Your task to perform on an android device: turn off location history Image 0: 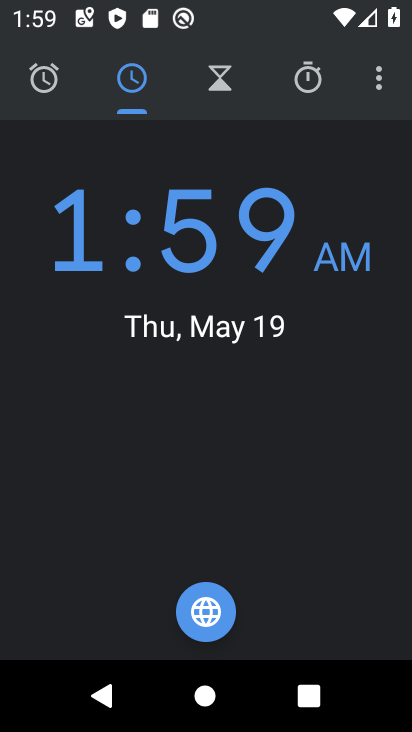
Step 0: press home button
Your task to perform on an android device: turn off location history Image 1: 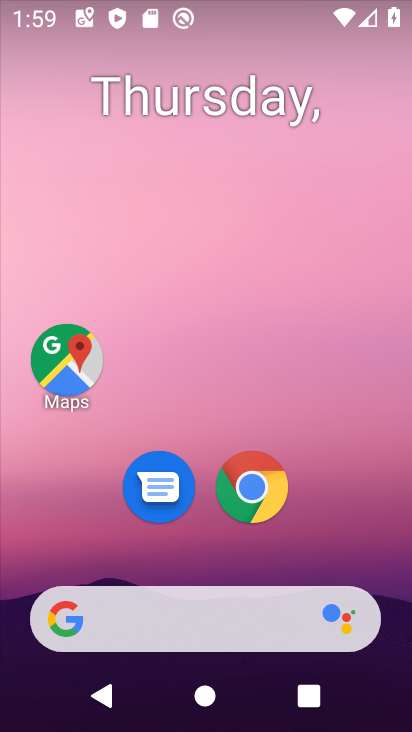
Step 1: drag from (313, 553) to (264, 38)
Your task to perform on an android device: turn off location history Image 2: 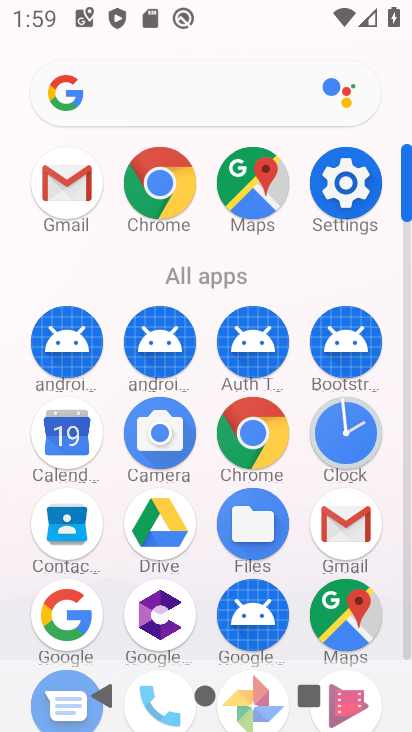
Step 2: click (339, 186)
Your task to perform on an android device: turn off location history Image 3: 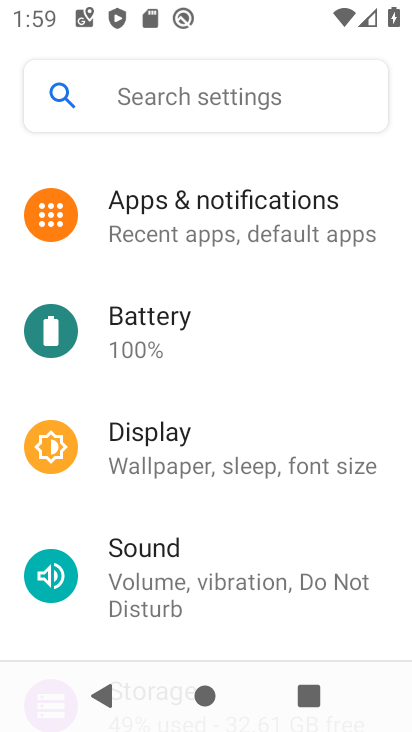
Step 3: drag from (168, 585) to (210, 251)
Your task to perform on an android device: turn off location history Image 4: 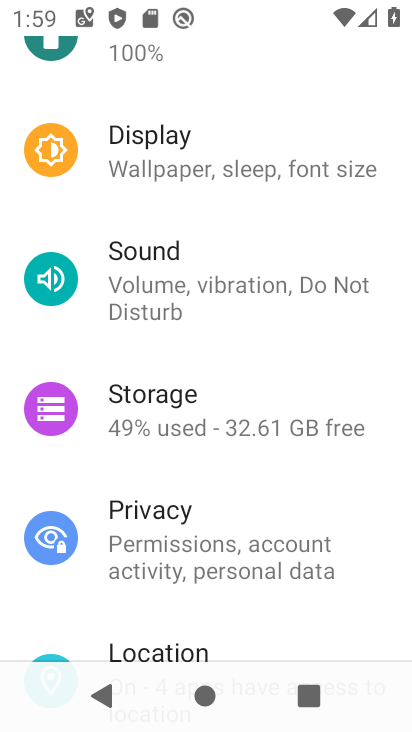
Step 4: drag from (204, 510) to (233, 185)
Your task to perform on an android device: turn off location history Image 5: 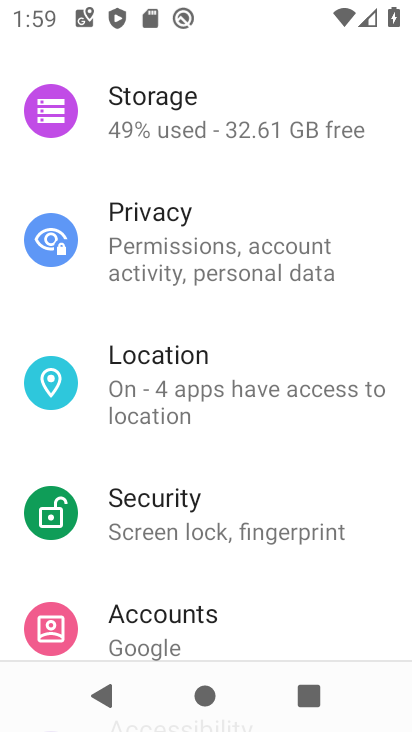
Step 5: click (191, 378)
Your task to perform on an android device: turn off location history Image 6: 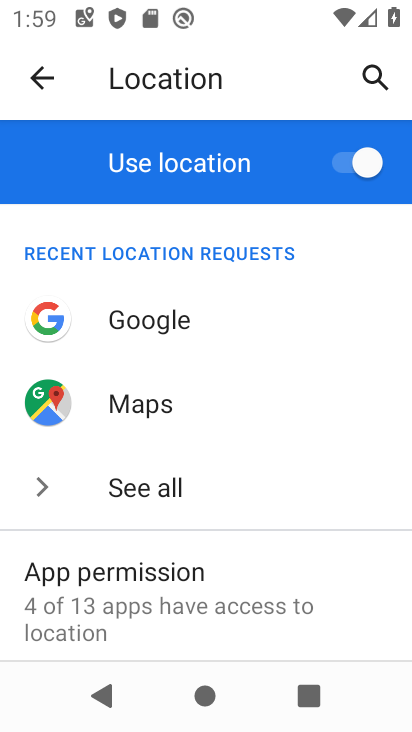
Step 6: drag from (161, 582) to (171, 244)
Your task to perform on an android device: turn off location history Image 7: 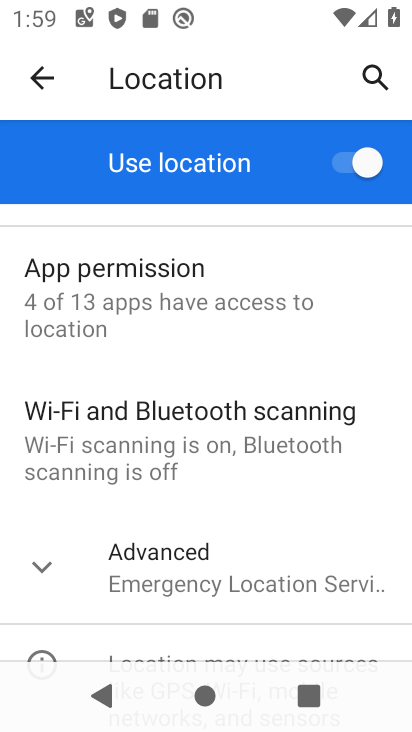
Step 7: click (207, 580)
Your task to perform on an android device: turn off location history Image 8: 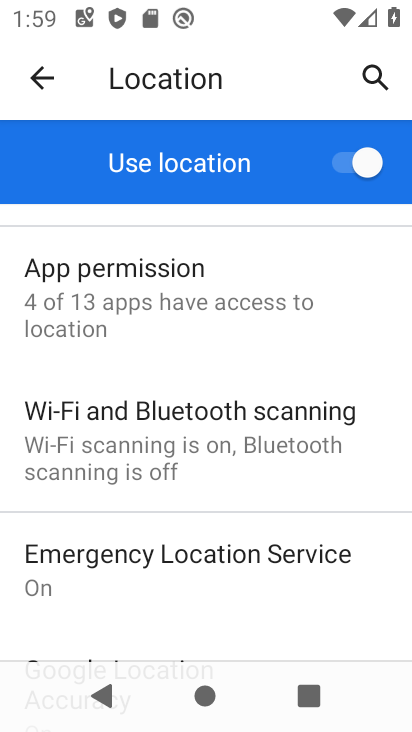
Step 8: drag from (204, 562) to (209, 253)
Your task to perform on an android device: turn off location history Image 9: 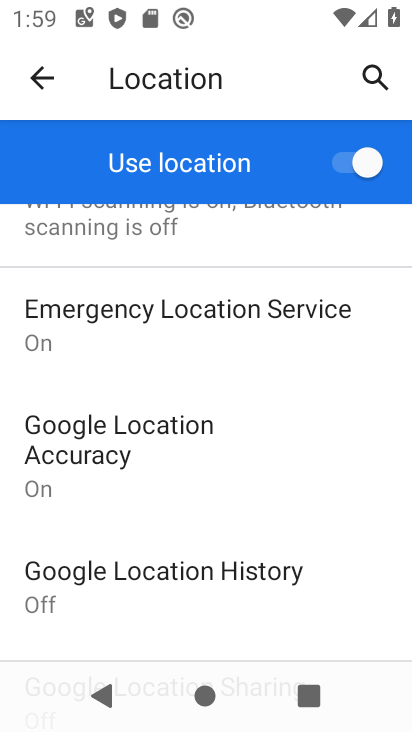
Step 9: click (71, 583)
Your task to perform on an android device: turn off location history Image 10: 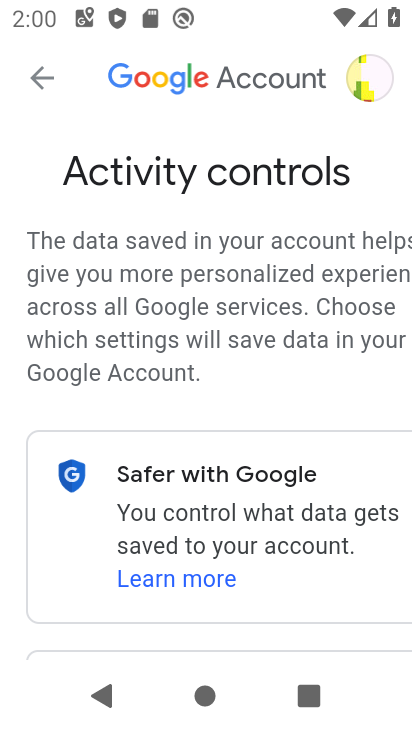
Step 10: task complete